Your task to perform on an android device: change the upload size in google photos Image 0: 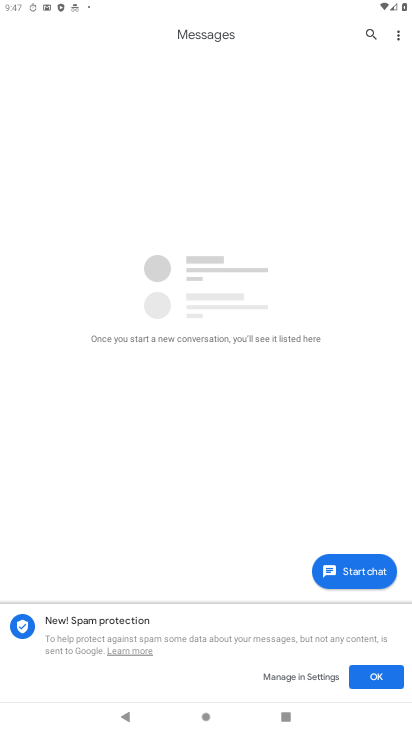
Step 0: press back button
Your task to perform on an android device: change the upload size in google photos Image 1: 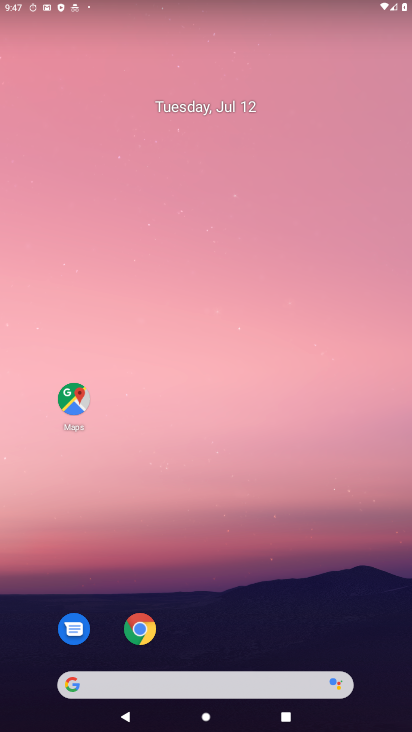
Step 1: drag from (298, 267) to (296, 54)
Your task to perform on an android device: change the upload size in google photos Image 2: 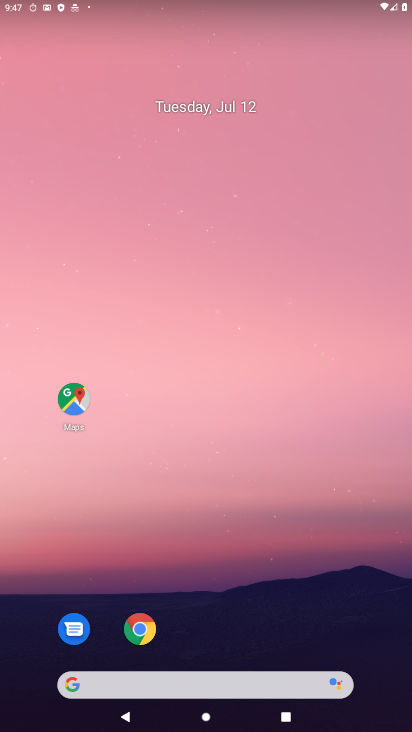
Step 2: drag from (254, 510) to (238, 147)
Your task to perform on an android device: change the upload size in google photos Image 3: 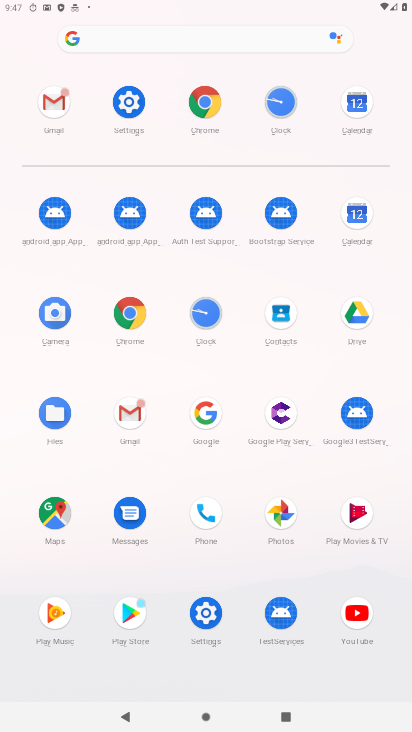
Step 3: click (279, 504)
Your task to perform on an android device: change the upload size in google photos Image 4: 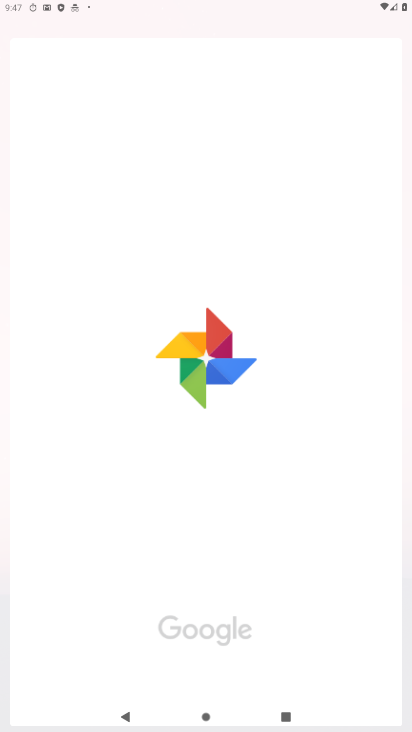
Step 4: click (281, 505)
Your task to perform on an android device: change the upload size in google photos Image 5: 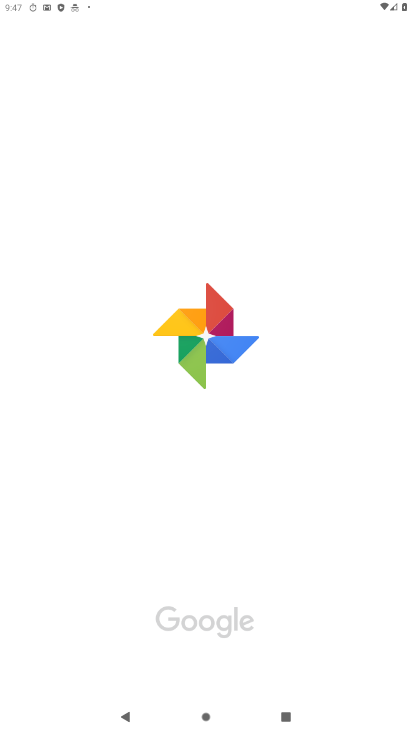
Step 5: click (281, 505)
Your task to perform on an android device: change the upload size in google photos Image 6: 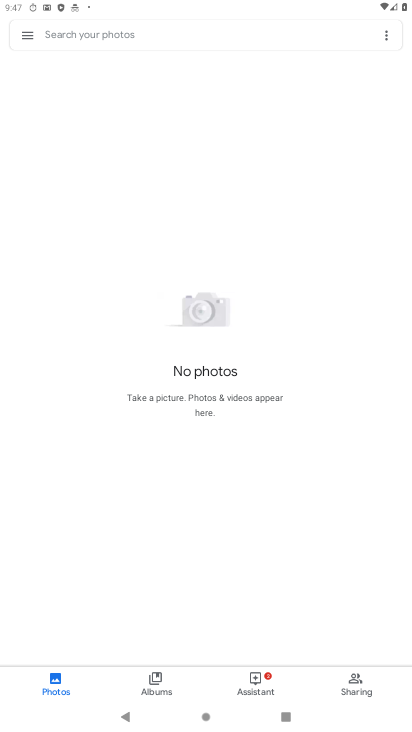
Step 6: click (29, 38)
Your task to perform on an android device: change the upload size in google photos Image 7: 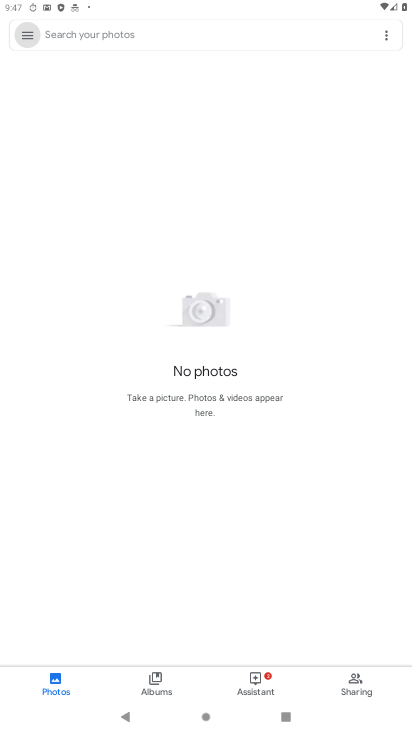
Step 7: click (29, 46)
Your task to perform on an android device: change the upload size in google photos Image 8: 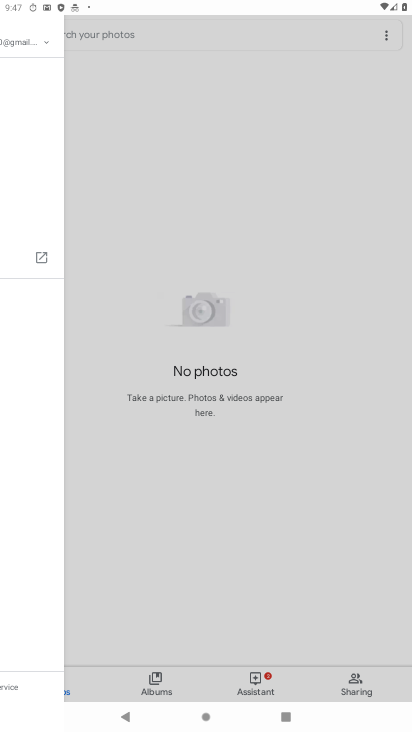
Step 8: click (29, 46)
Your task to perform on an android device: change the upload size in google photos Image 9: 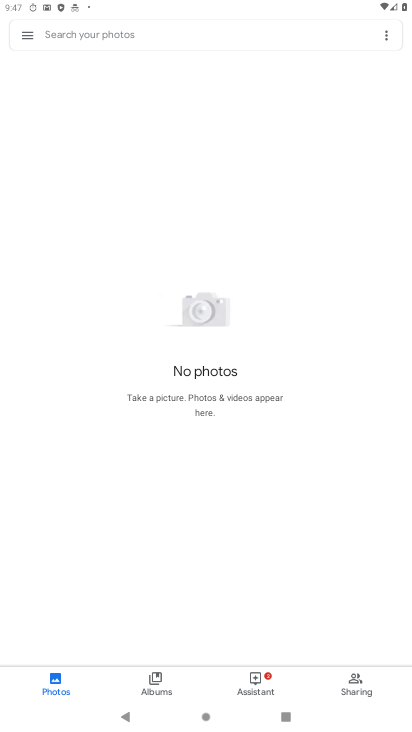
Step 9: click (29, 46)
Your task to perform on an android device: change the upload size in google photos Image 10: 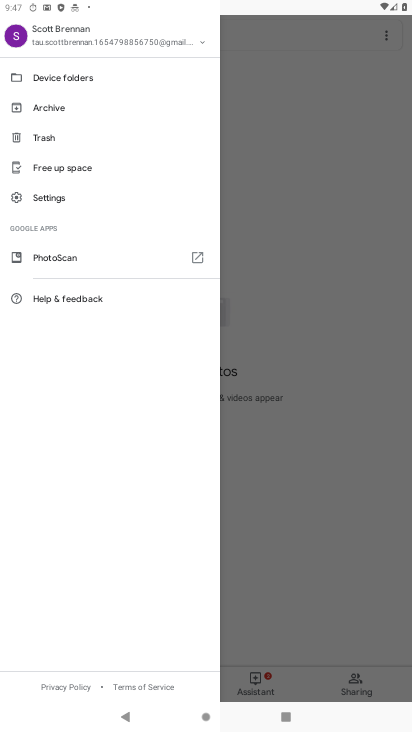
Step 10: click (29, 46)
Your task to perform on an android device: change the upload size in google photos Image 11: 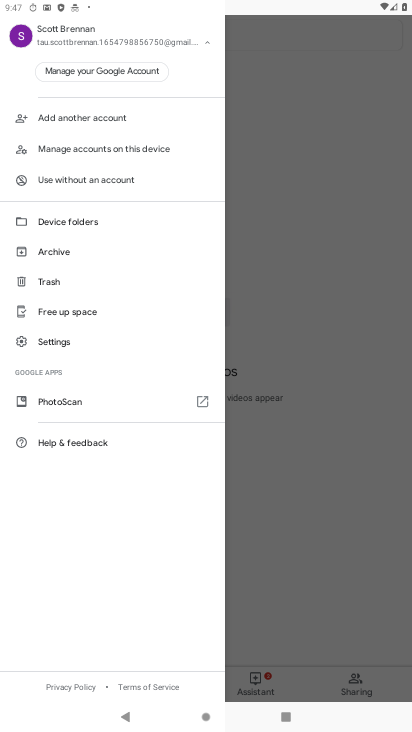
Step 11: click (50, 342)
Your task to perform on an android device: change the upload size in google photos Image 12: 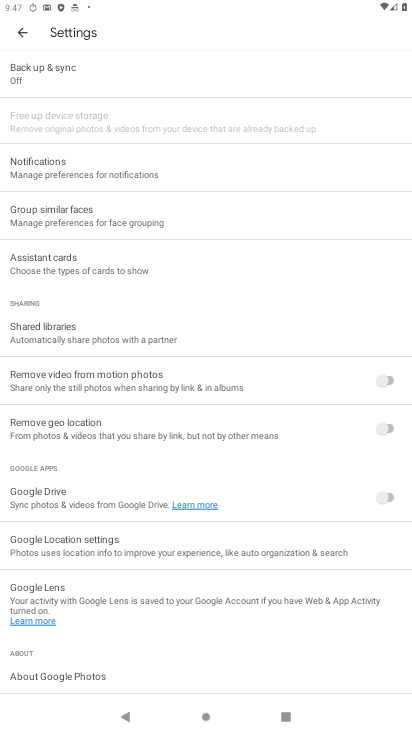
Step 12: click (50, 342)
Your task to perform on an android device: change the upload size in google photos Image 13: 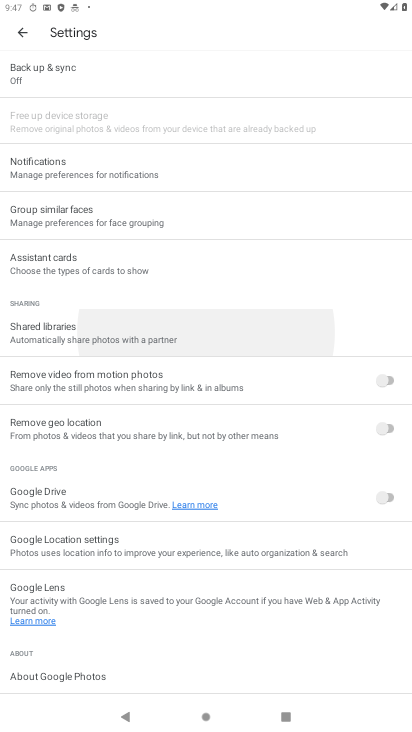
Step 13: click (50, 342)
Your task to perform on an android device: change the upload size in google photos Image 14: 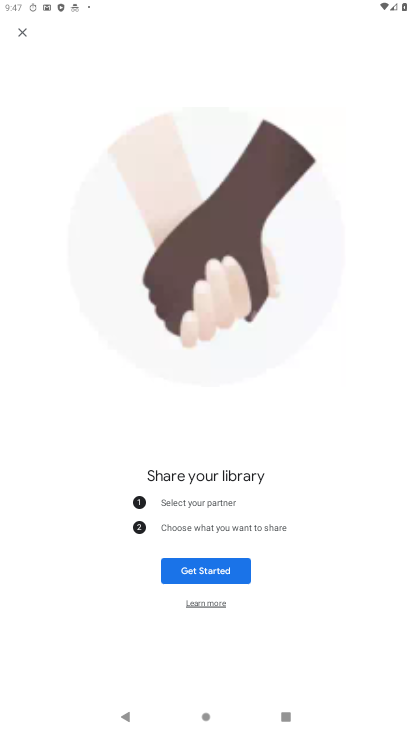
Step 14: click (26, 64)
Your task to perform on an android device: change the upload size in google photos Image 15: 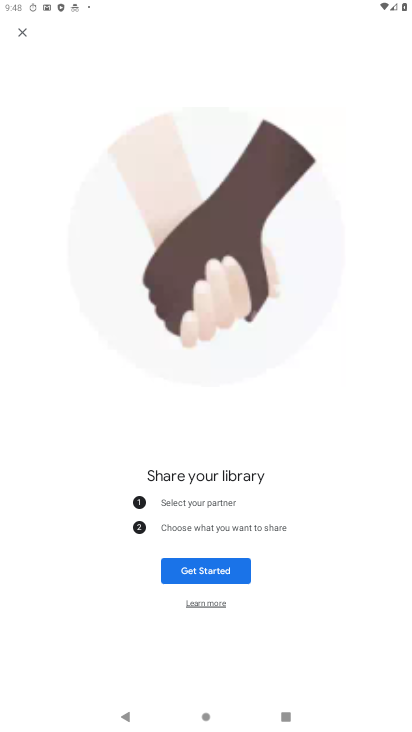
Step 15: press back button
Your task to perform on an android device: change the upload size in google photos Image 16: 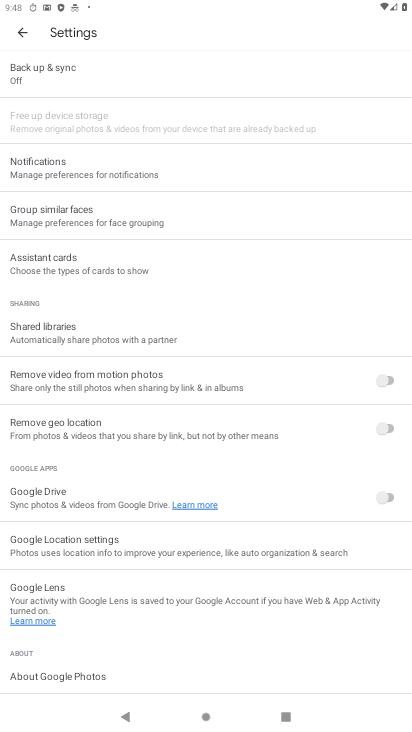
Step 16: click (34, 74)
Your task to perform on an android device: change the upload size in google photos Image 17: 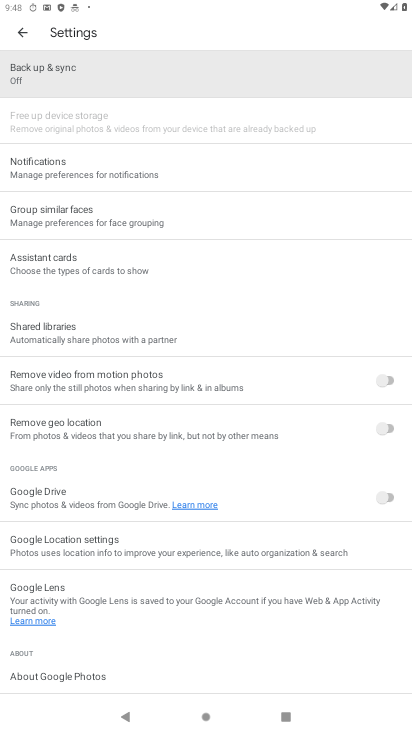
Step 17: click (11, 70)
Your task to perform on an android device: change the upload size in google photos Image 18: 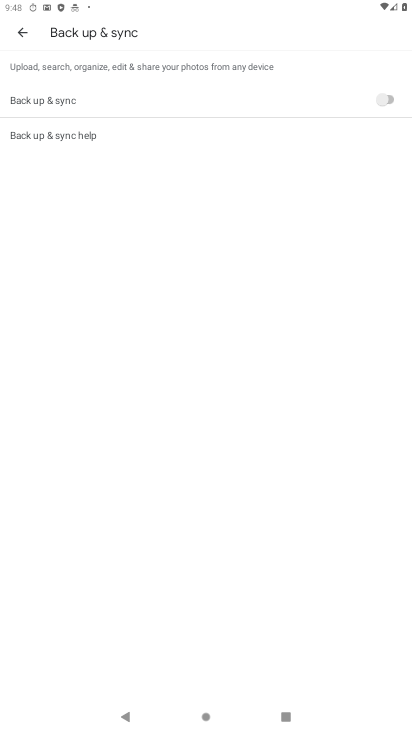
Step 18: click (40, 100)
Your task to perform on an android device: change the upload size in google photos Image 19: 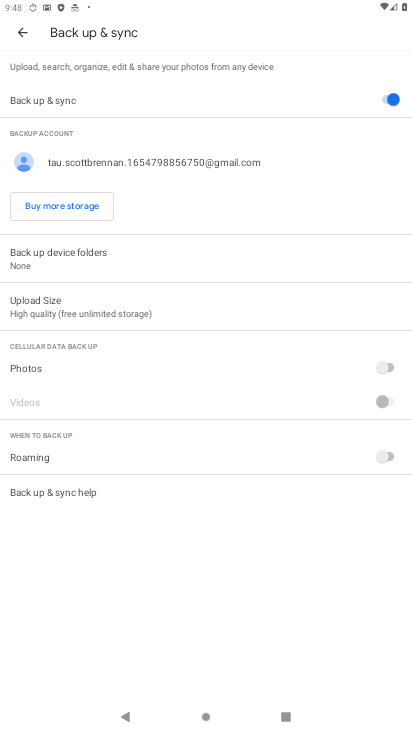
Step 19: click (63, 309)
Your task to perform on an android device: change the upload size in google photos Image 20: 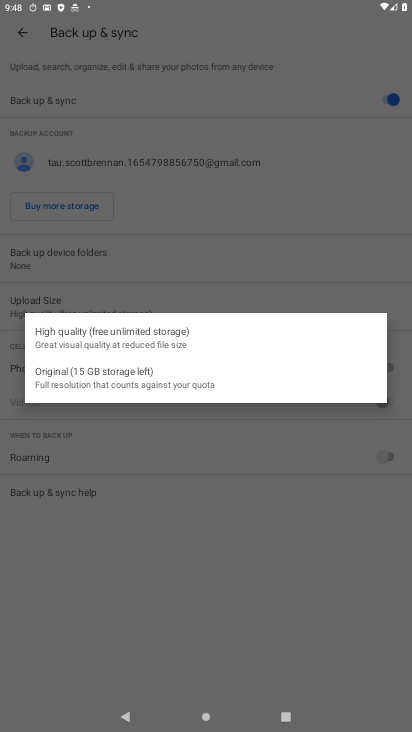
Step 20: click (75, 383)
Your task to perform on an android device: change the upload size in google photos Image 21: 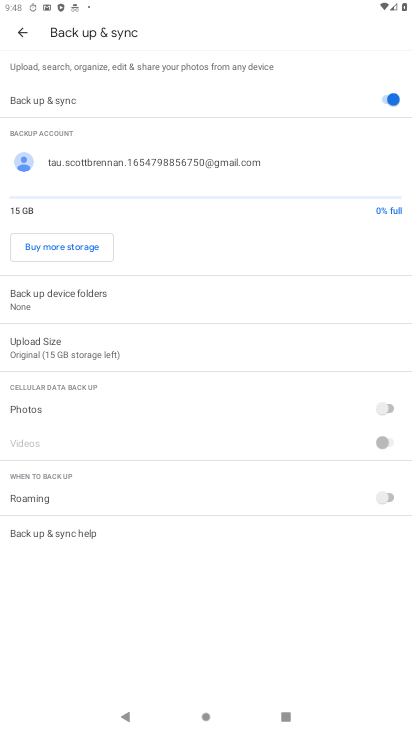
Step 21: task complete